Your task to perform on an android device: turn on the 12-hour format for clock Image 0: 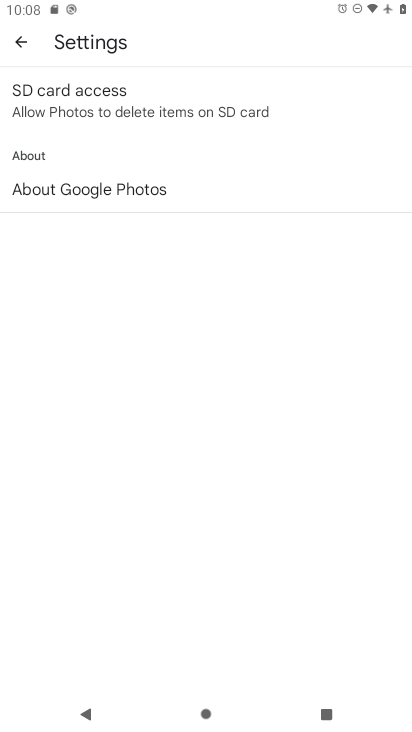
Step 0: press home button
Your task to perform on an android device: turn on the 12-hour format for clock Image 1: 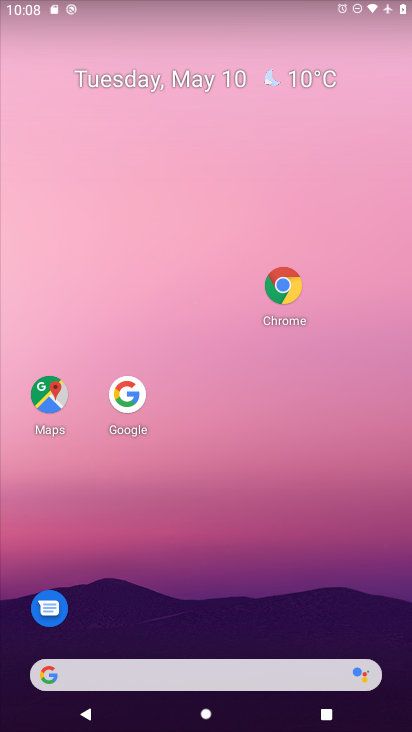
Step 1: drag from (193, 678) to (278, 314)
Your task to perform on an android device: turn on the 12-hour format for clock Image 2: 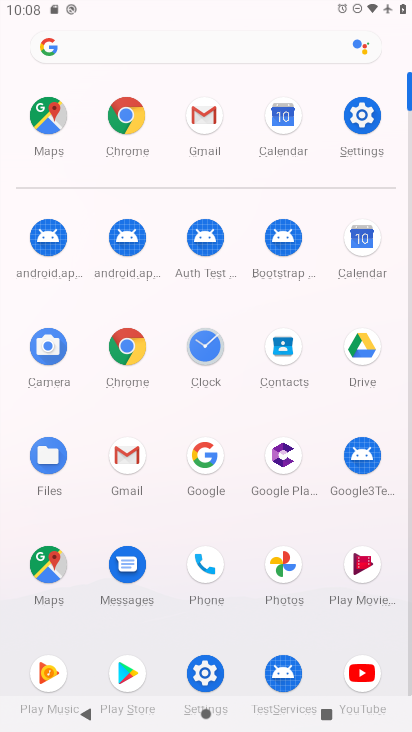
Step 2: click (208, 355)
Your task to perform on an android device: turn on the 12-hour format for clock Image 3: 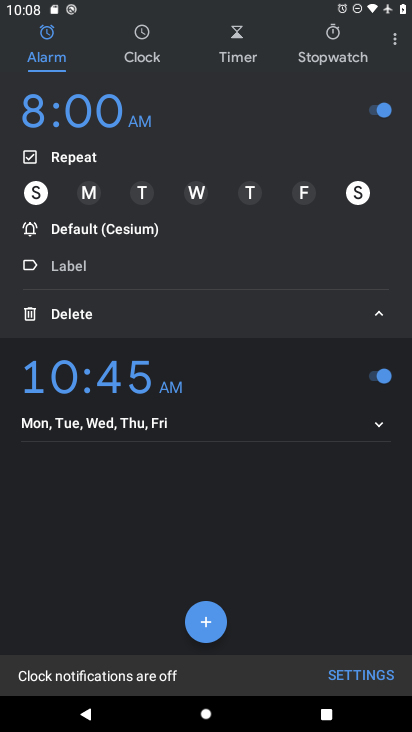
Step 3: click (393, 40)
Your task to perform on an android device: turn on the 12-hour format for clock Image 4: 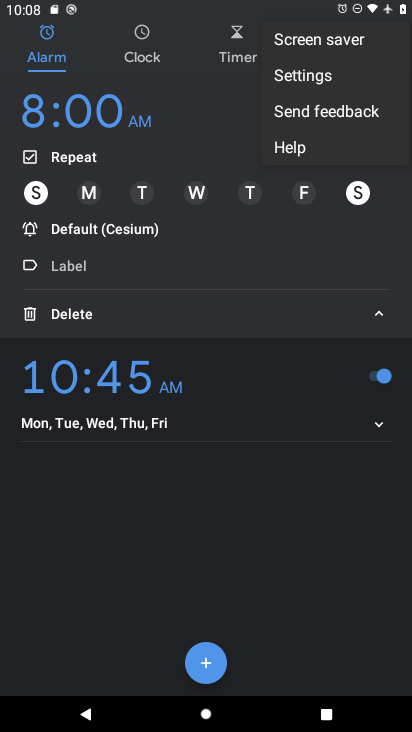
Step 4: click (307, 78)
Your task to perform on an android device: turn on the 12-hour format for clock Image 5: 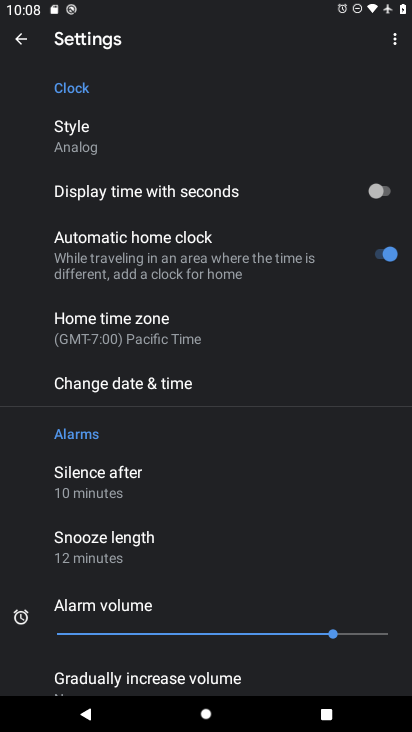
Step 5: click (155, 384)
Your task to perform on an android device: turn on the 12-hour format for clock Image 6: 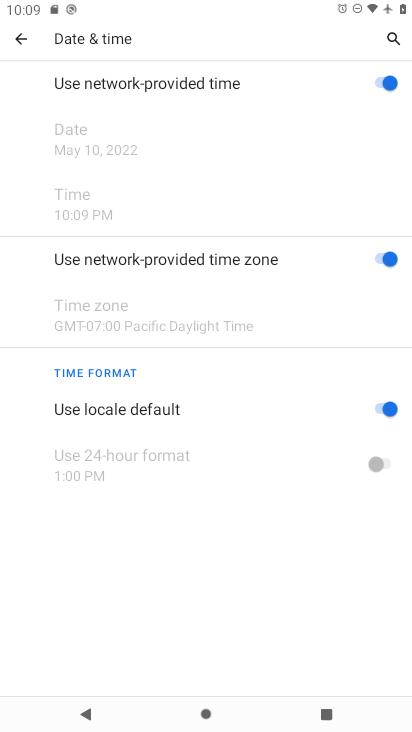
Step 6: task complete